Your task to perform on an android device: change the upload size in google photos Image 0: 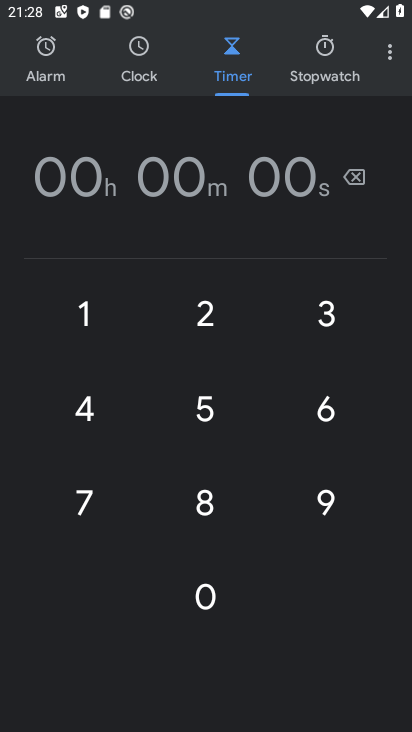
Step 0: press home button
Your task to perform on an android device: change the upload size in google photos Image 1: 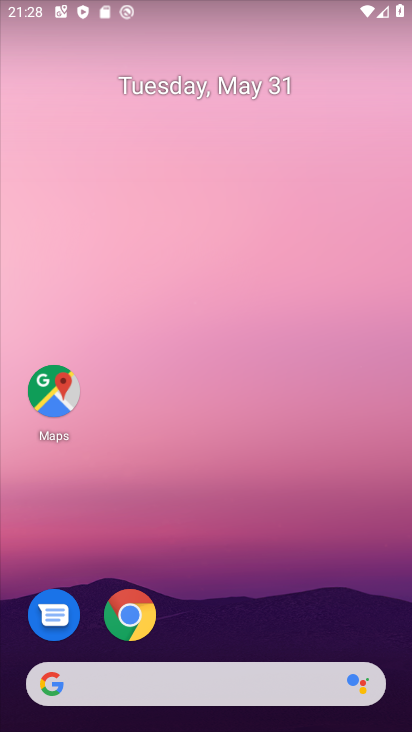
Step 1: drag from (235, 596) to (248, 88)
Your task to perform on an android device: change the upload size in google photos Image 2: 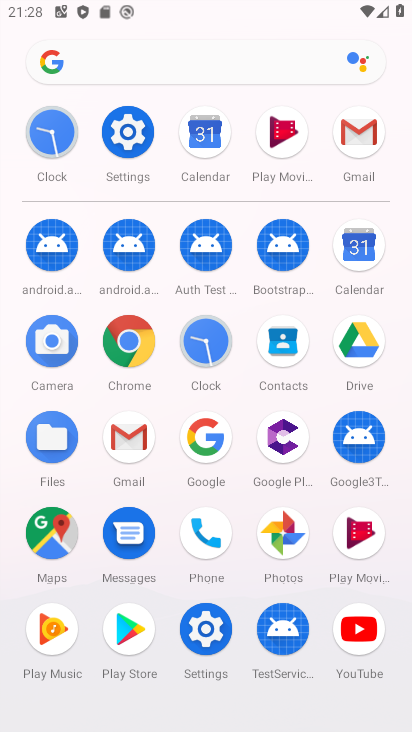
Step 2: click (275, 533)
Your task to perform on an android device: change the upload size in google photos Image 3: 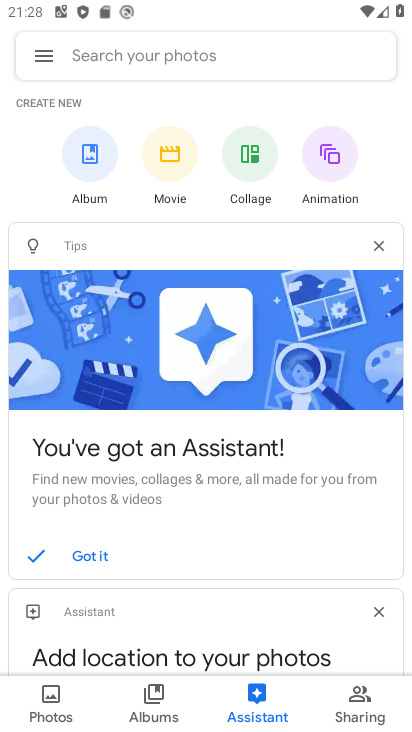
Step 3: click (39, 52)
Your task to perform on an android device: change the upload size in google photos Image 4: 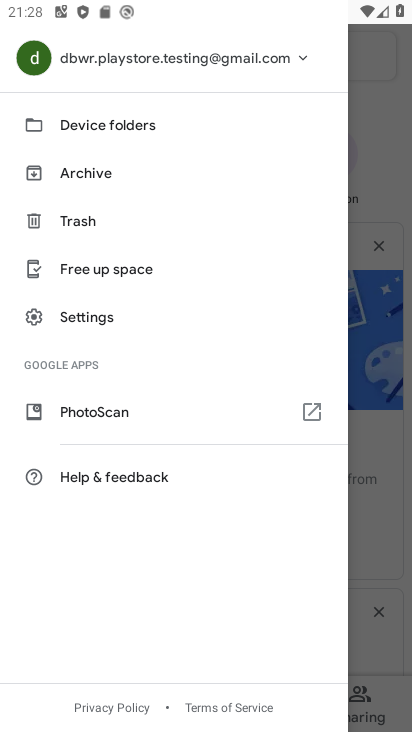
Step 4: click (122, 76)
Your task to perform on an android device: change the upload size in google photos Image 5: 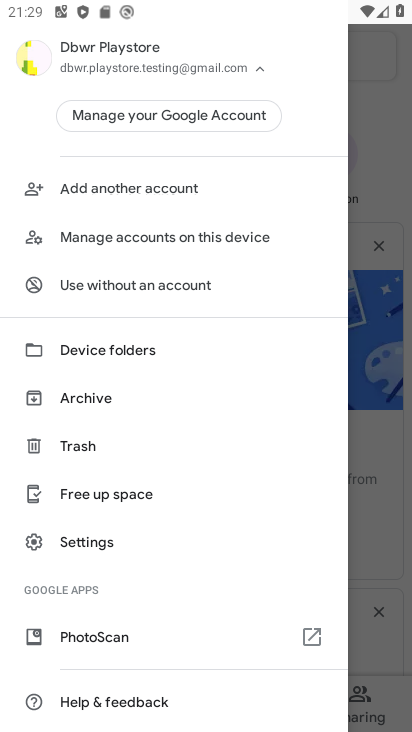
Step 5: click (97, 547)
Your task to perform on an android device: change the upload size in google photos Image 6: 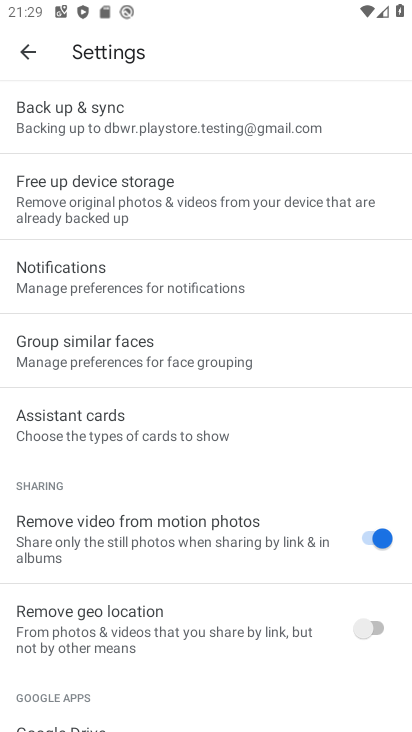
Step 6: click (158, 133)
Your task to perform on an android device: change the upload size in google photos Image 7: 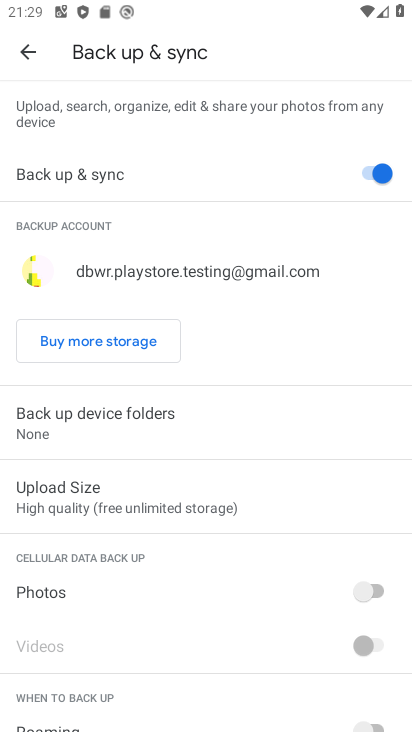
Step 7: click (139, 515)
Your task to perform on an android device: change the upload size in google photos Image 8: 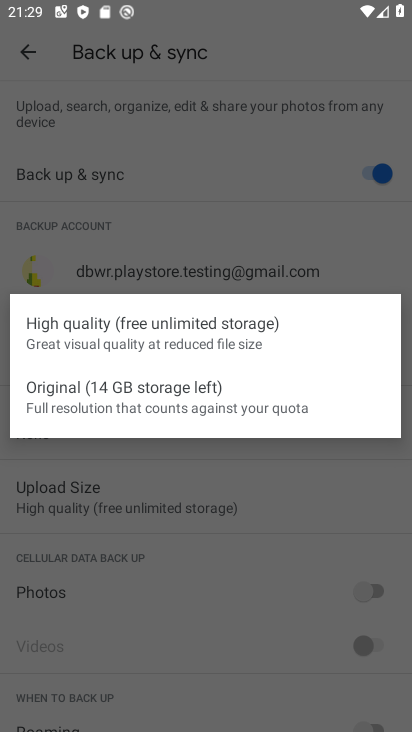
Step 8: click (159, 399)
Your task to perform on an android device: change the upload size in google photos Image 9: 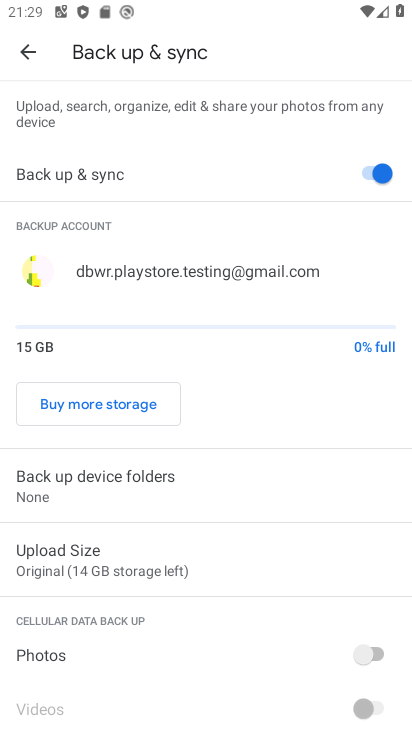
Step 9: task complete